Your task to perform on an android device: install app "Move to iOS" Image 0: 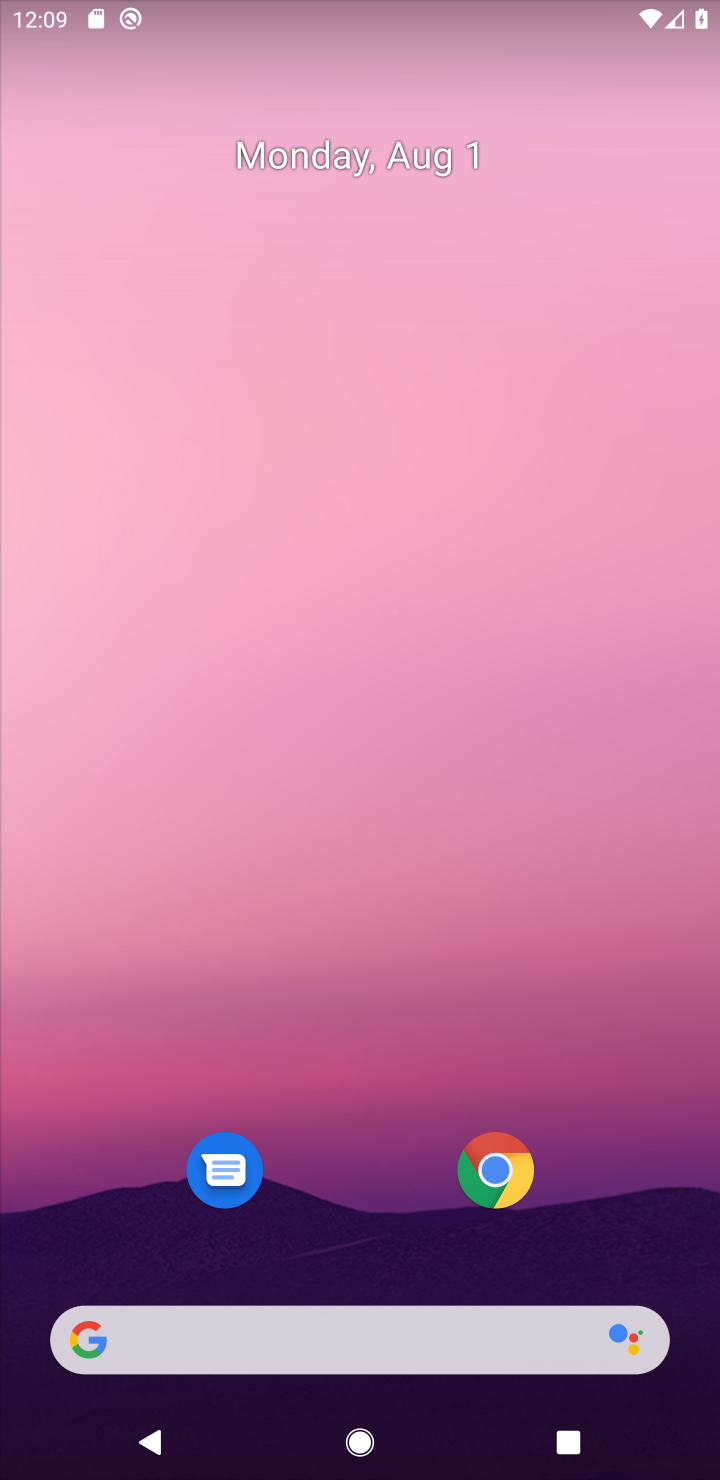
Step 0: drag from (661, 1228) to (414, 0)
Your task to perform on an android device: install app "Move to iOS" Image 1: 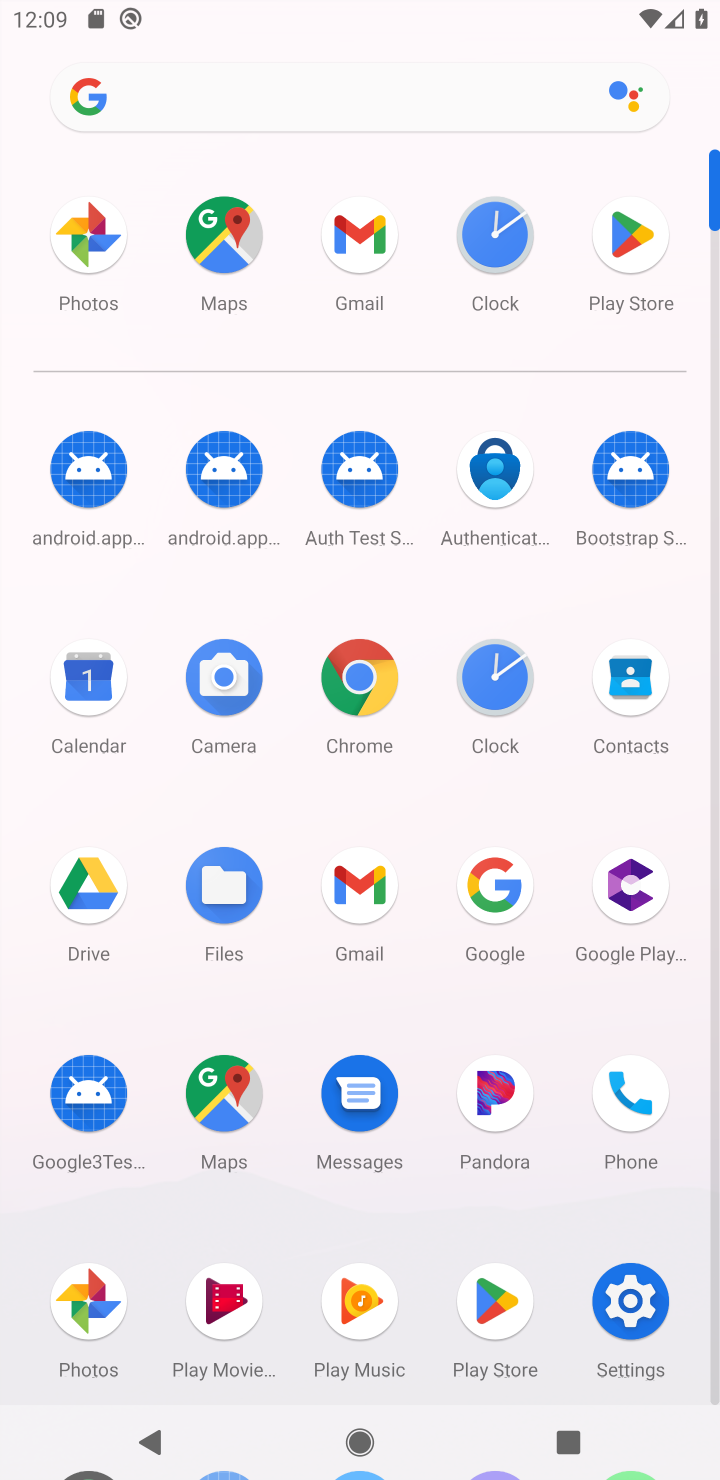
Step 1: click (614, 259)
Your task to perform on an android device: install app "Move to iOS" Image 2: 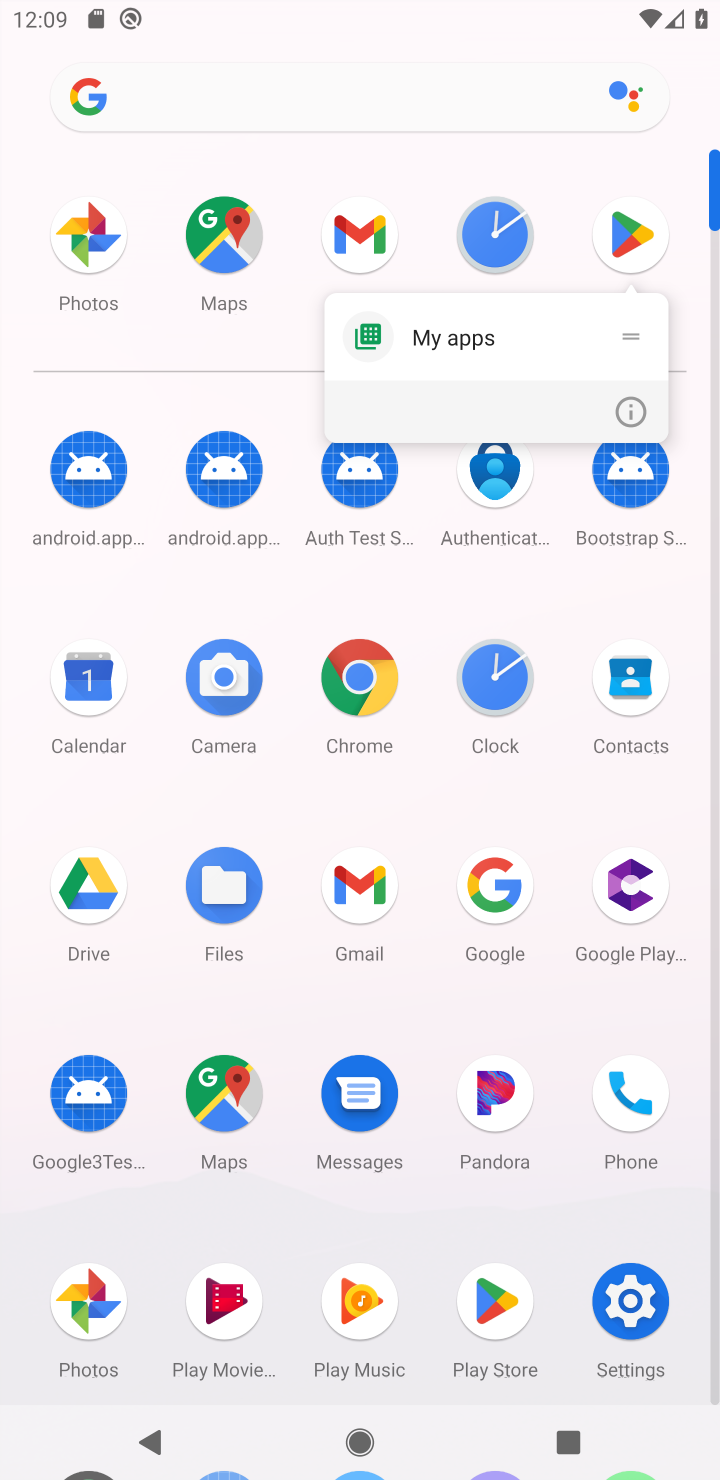
Step 2: click (624, 248)
Your task to perform on an android device: install app "Move to iOS" Image 3: 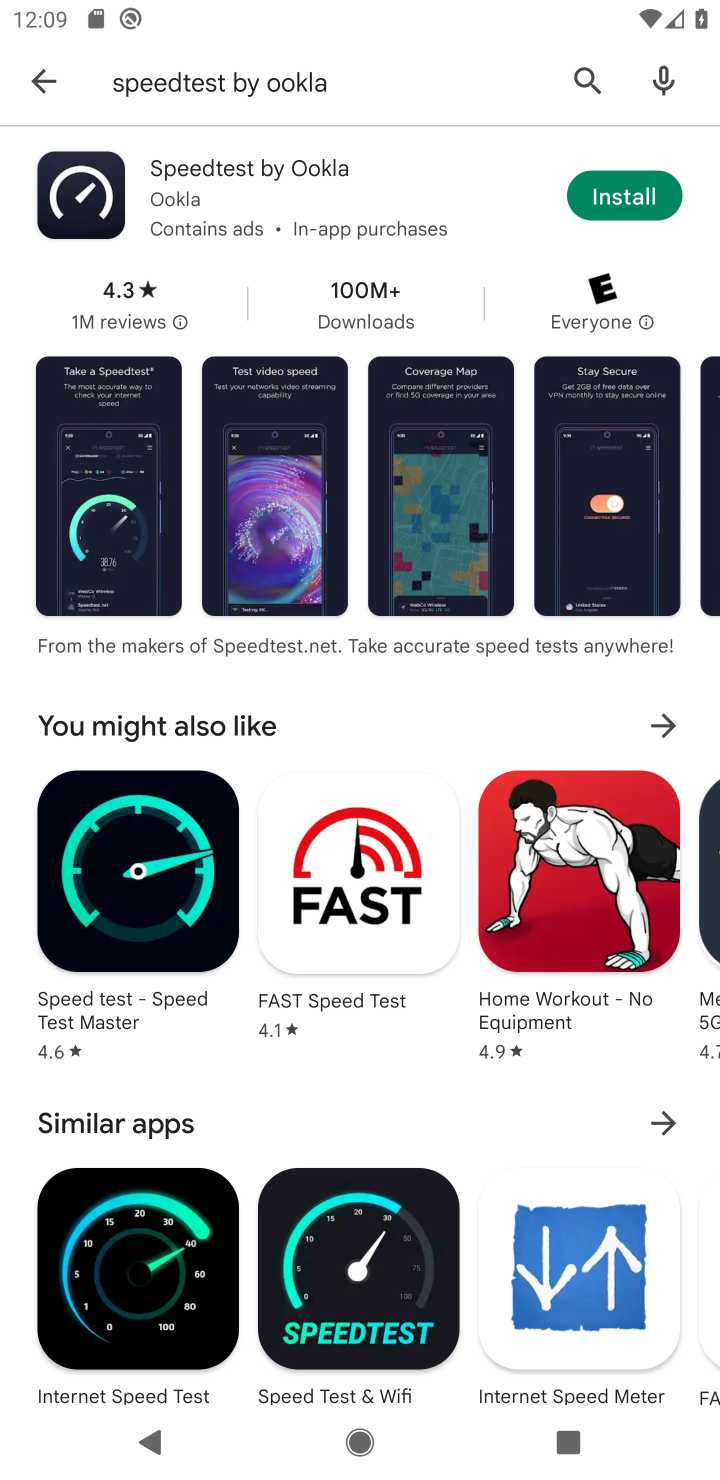
Step 3: press back button
Your task to perform on an android device: install app "Move to iOS" Image 4: 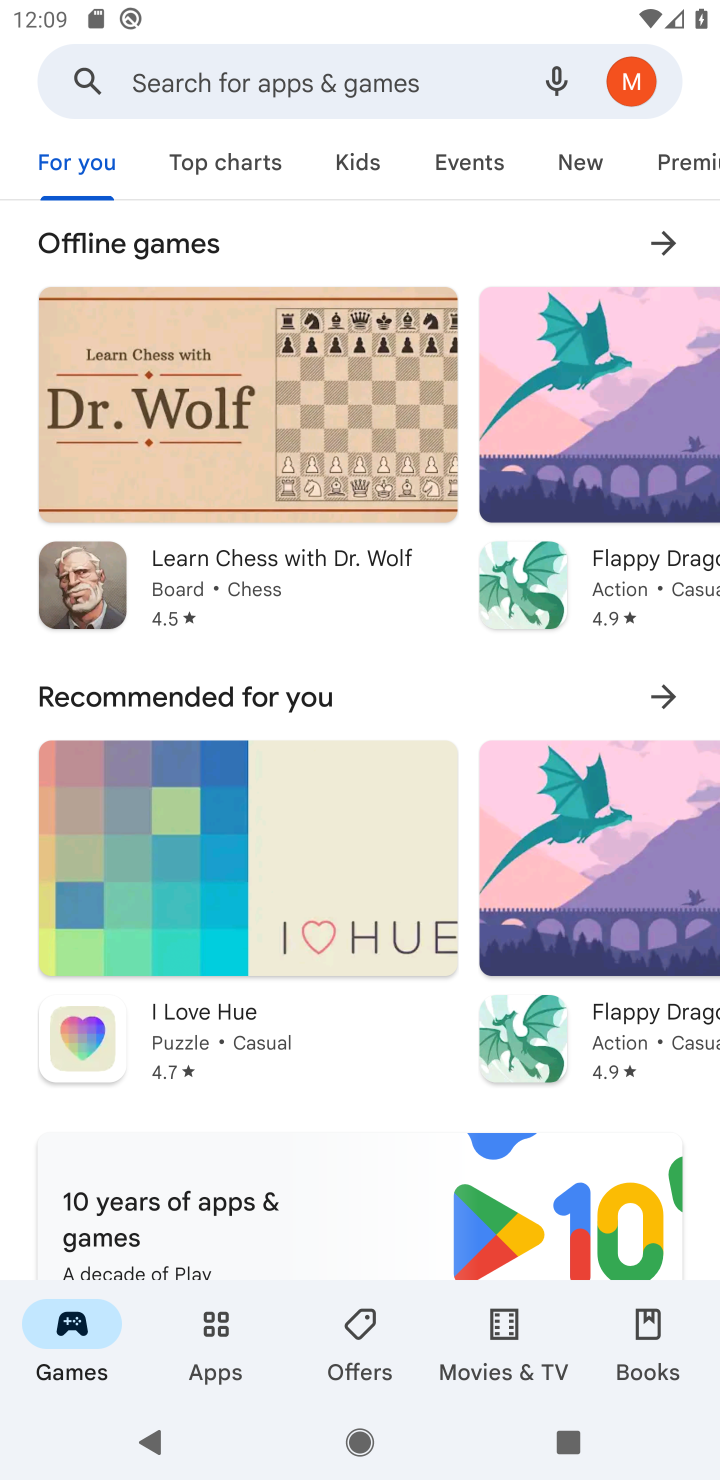
Step 4: click (204, 89)
Your task to perform on an android device: install app "Move to iOS" Image 5: 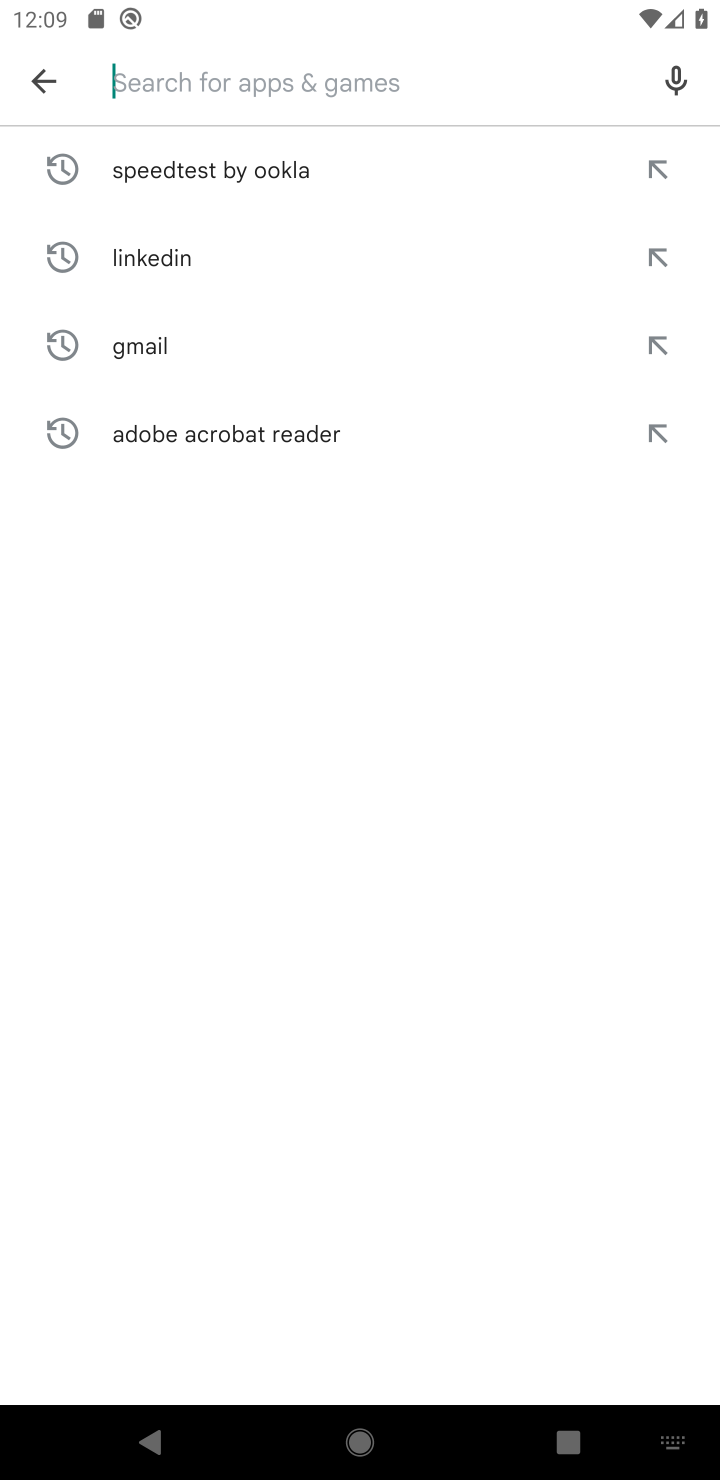
Step 5: type "Move to iOS"
Your task to perform on an android device: install app "Move to iOS" Image 6: 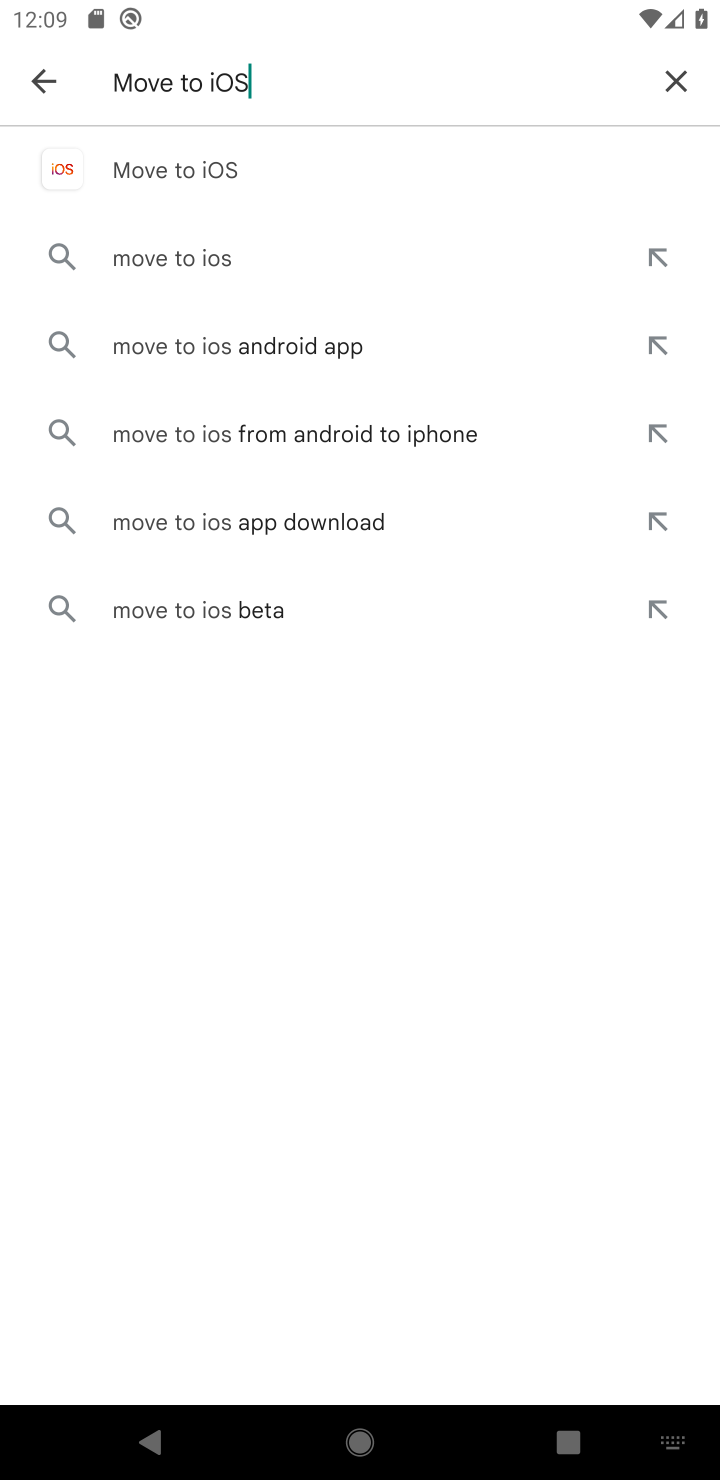
Step 6: click (114, 184)
Your task to perform on an android device: install app "Move to iOS" Image 7: 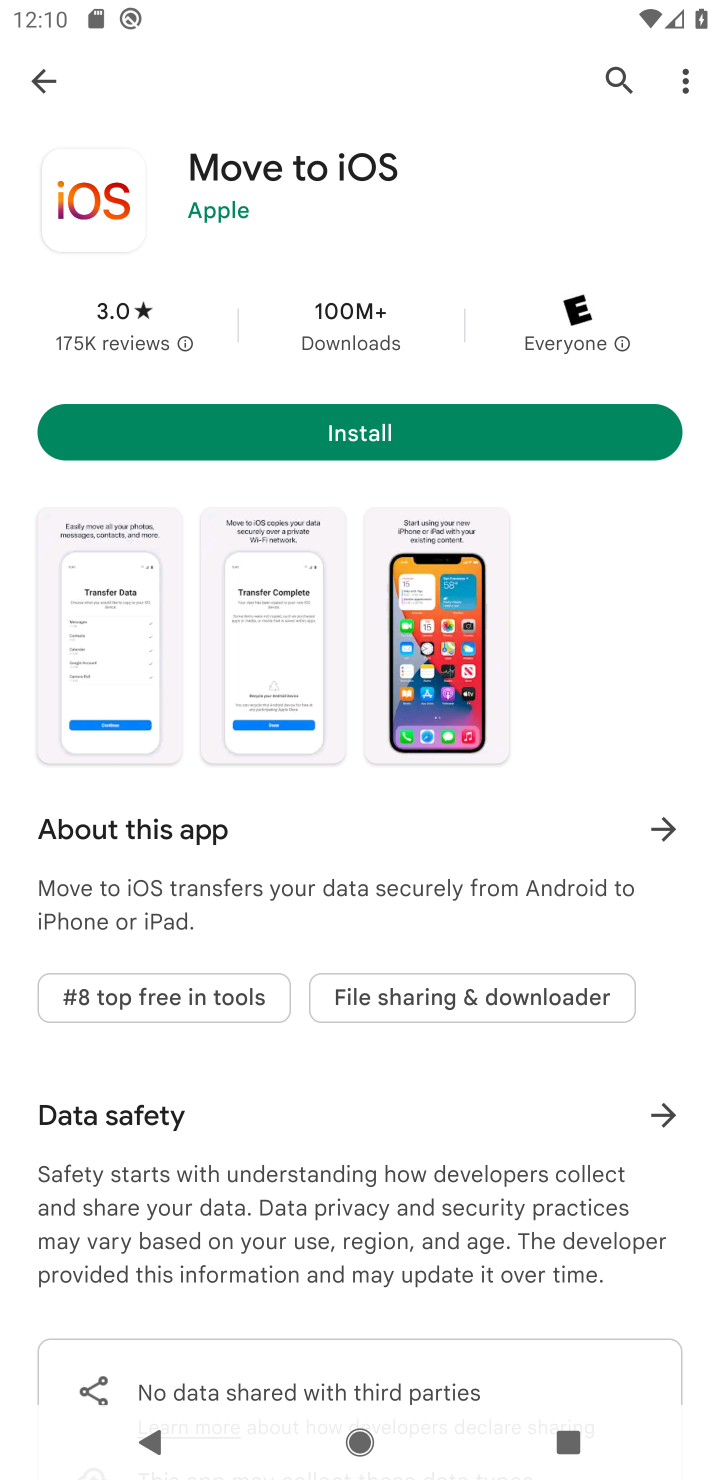
Step 7: click (497, 436)
Your task to perform on an android device: install app "Move to iOS" Image 8: 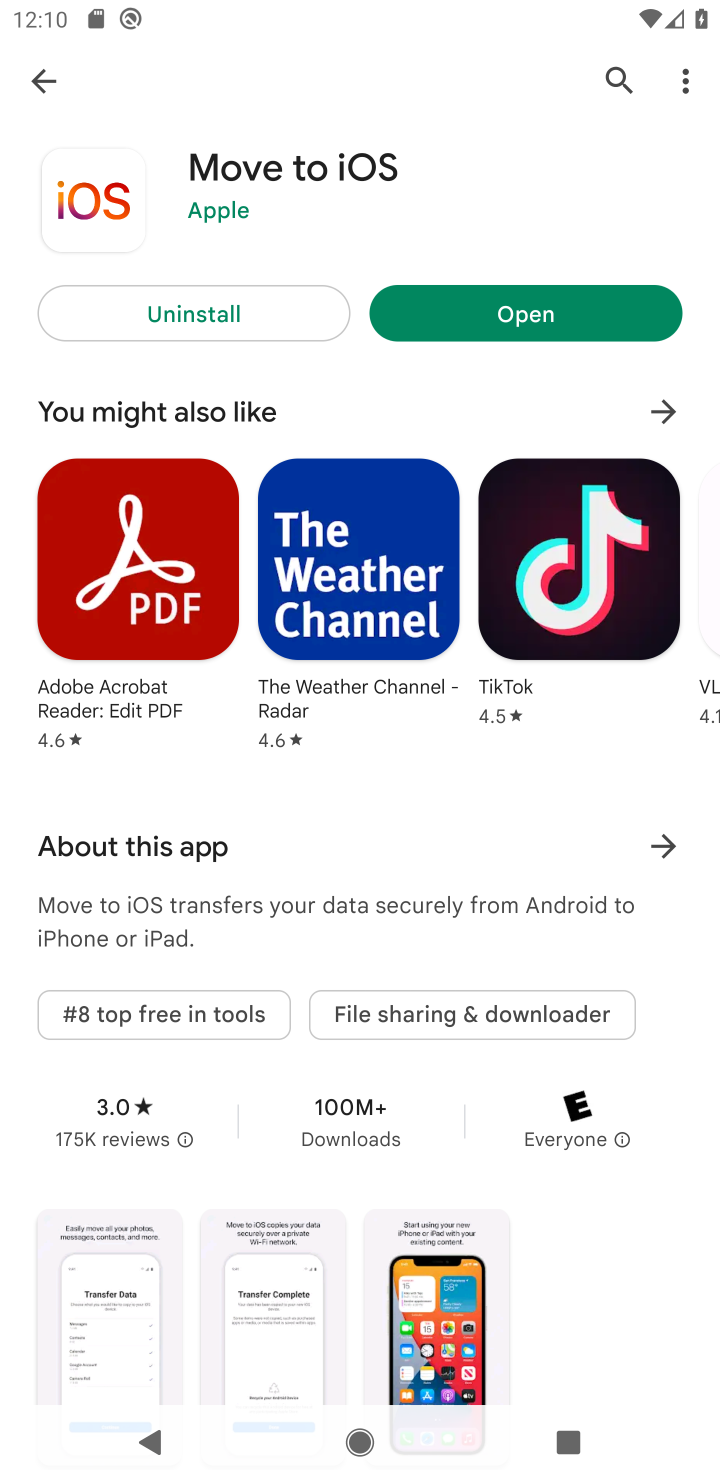
Step 8: task complete